Your task to perform on an android device: Check the weather Image 0: 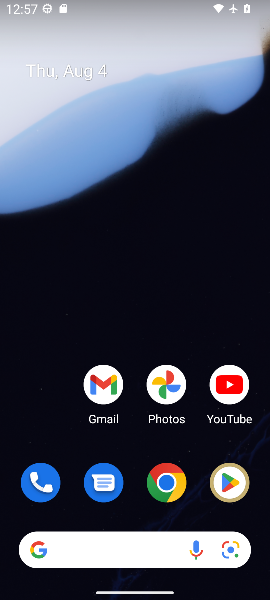
Step 0: drag from (129, 449) to (109, 134)
Your task to perform on an android device: Check the weather Image 1: 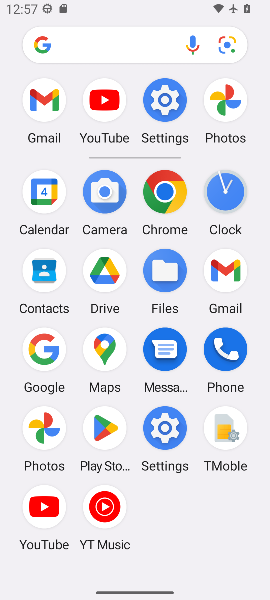
Step 1: click (53, 347)
Your task to perform on an android device: Check the weather Image 2: 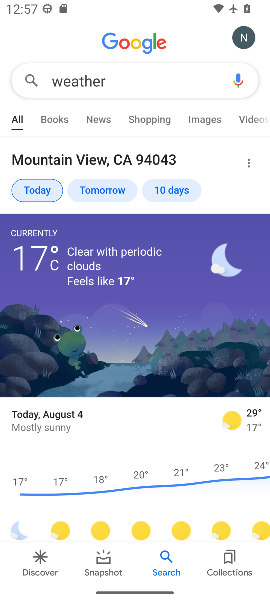
Step 2: task complete